Your task to perform on an android device: remove spam from my inbox in the gmail app Image 0: 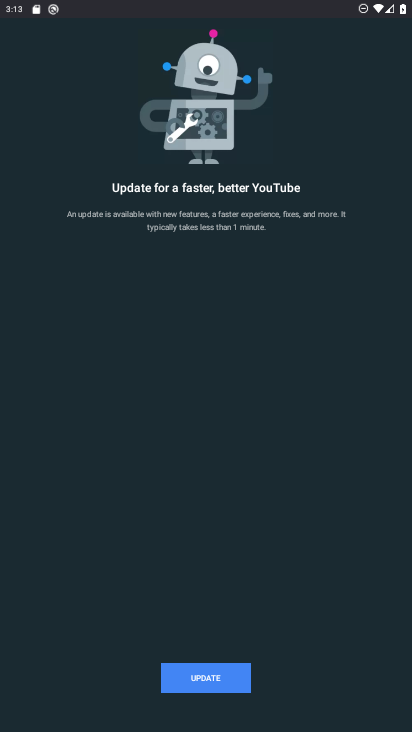
Step 0: press home button
Your task to perform on an android device: remove spam from my inbox in the gmail app Image 1: 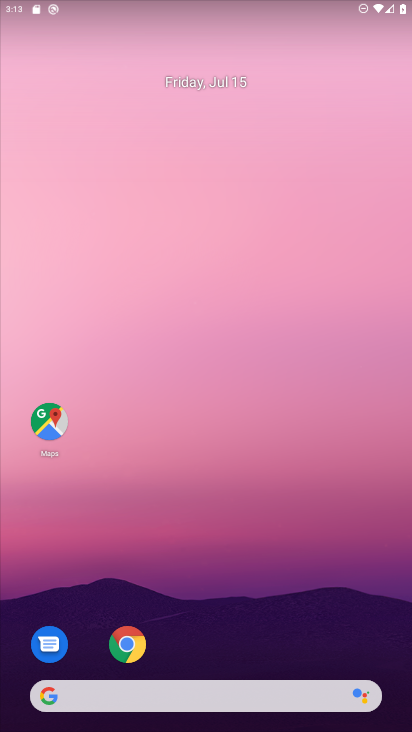
Step 1: drag from (17, 565) to (205, 163)
Your task to perform on an android device: remove spam from my inbox in the gmail app Image 2: 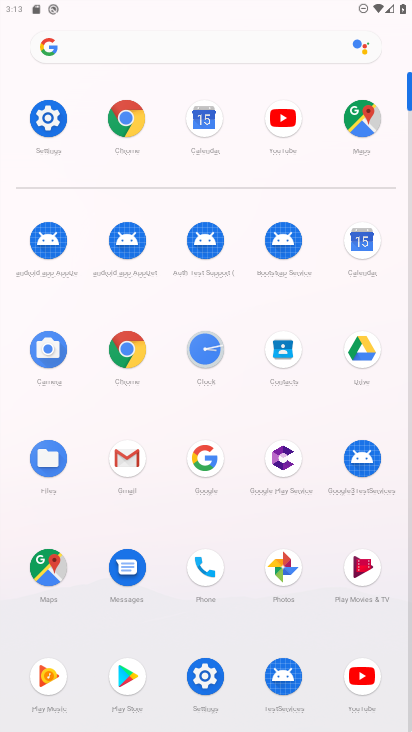
Step 2: click (124, 469)
Your task to perform on an android device: remove spam from my inbox in the gmail app Image 3: 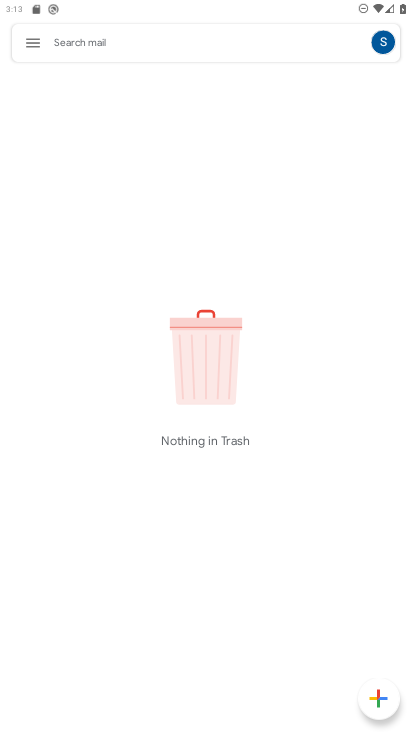
Step 3: click (37, 47)
Your task to perform on an android device: remove spam from my inbox in the gmail app Image 4: 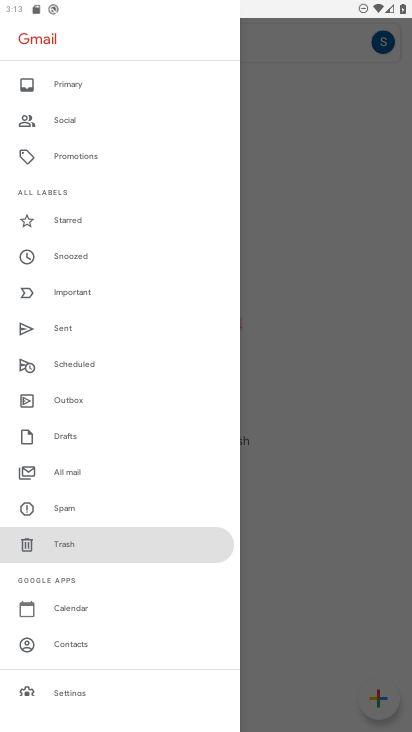
Step 4: click (74, 502)
Your task to perform on an android device: remove spam from my inbox in the gmail app Image 5: 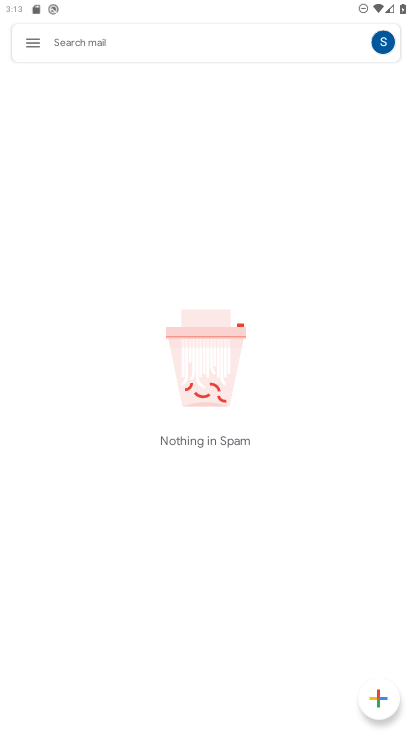
Step 5: task complete